Your task to perform on an android device: open chrome privacy settings Image 0: 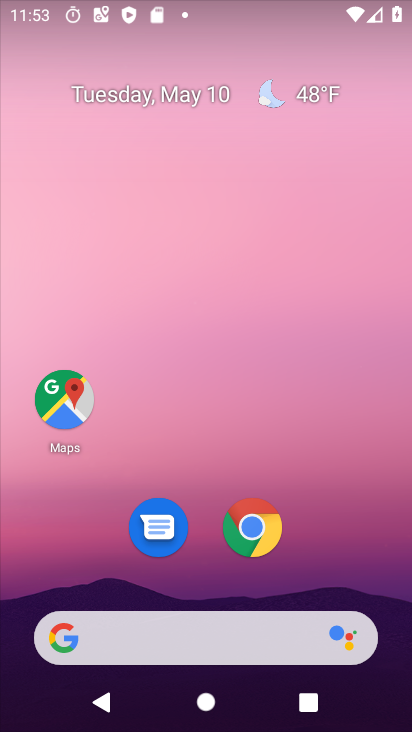
Step 0: click (255, 532)
Your task to perform on an android device: open chrome privacy settings Image 1: 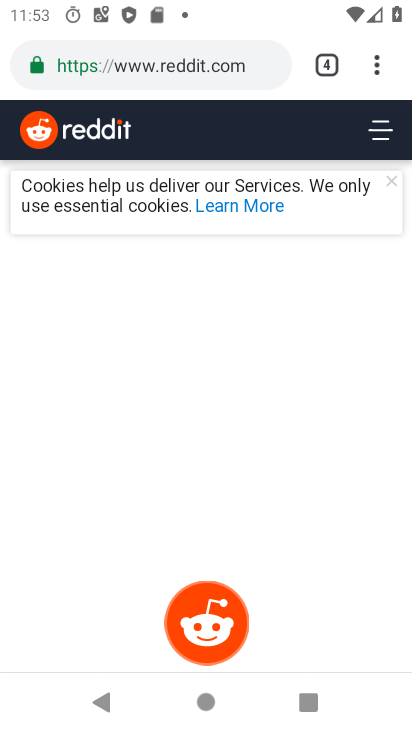
Step 1: click (378, 67)
Your task to perform on an android device: open chrome privacy settings Image 2: 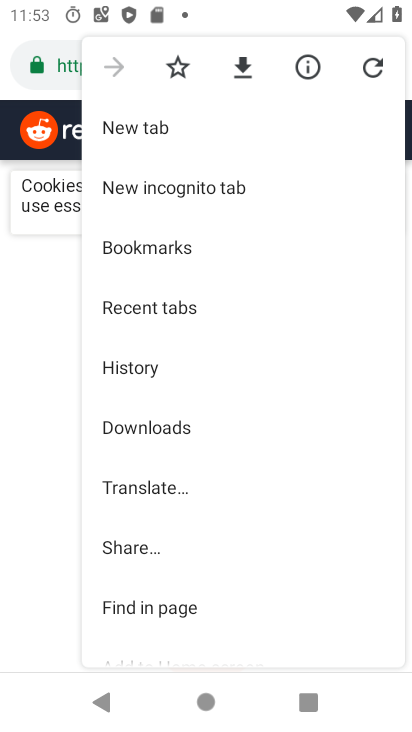
Step 2: drag from (195, 625) to (195, 217)
Your task to perform on an android device: open chrome privacy settings Image 3: 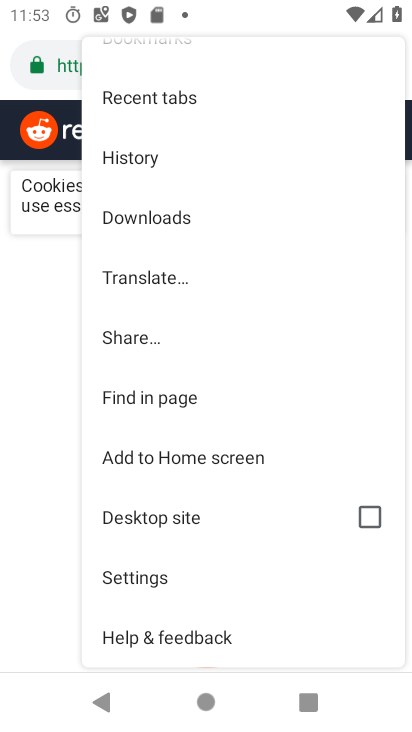
Step 3: click (143, 568)
Your task to perform on an android device: open chrome privacy settings Image 4: 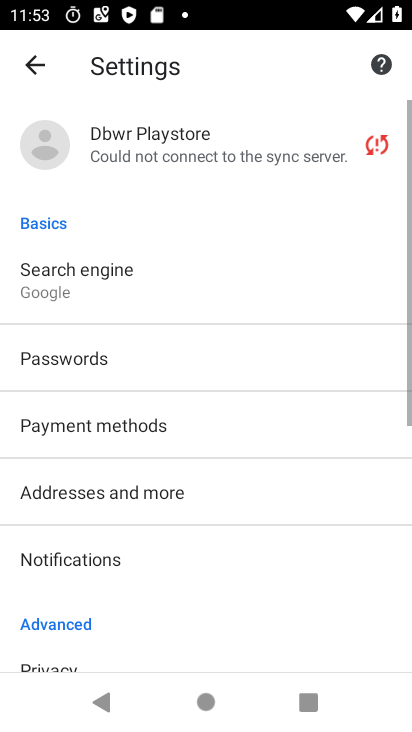
Step 4: drag from (171, 626) to (172, 242)
Your task to perform on an android device: open chrome privacy settings Image 5: 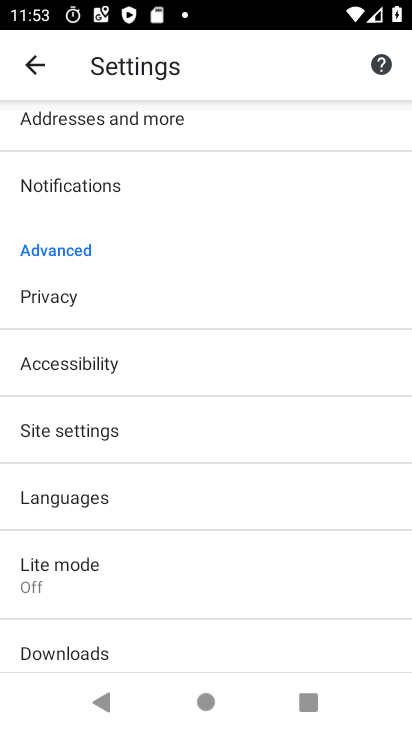
Step 5: click (68, 298)
Your task to perform on an android device: open chrome privacy settings Image 6: 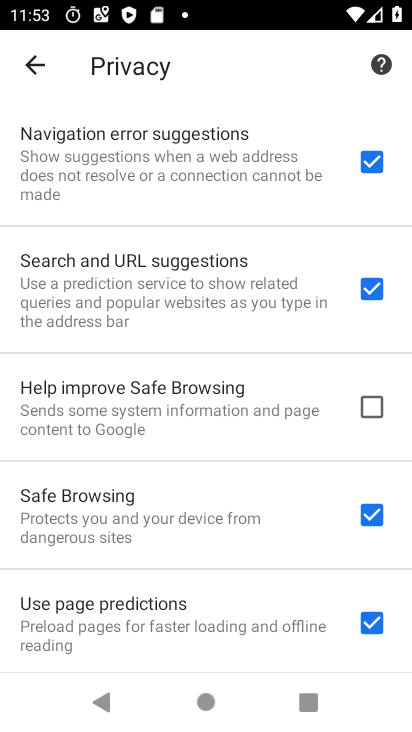
Step 6: task complete